Your task to perform on an android device: Go to calendar. Show me events next week Image 0: 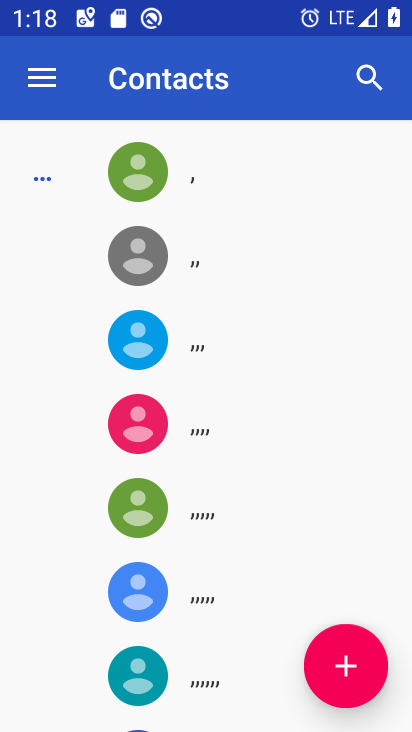
Step 0: press home button
Your task to perform on an android device: Go to calendar. Show me events next week Image 1: 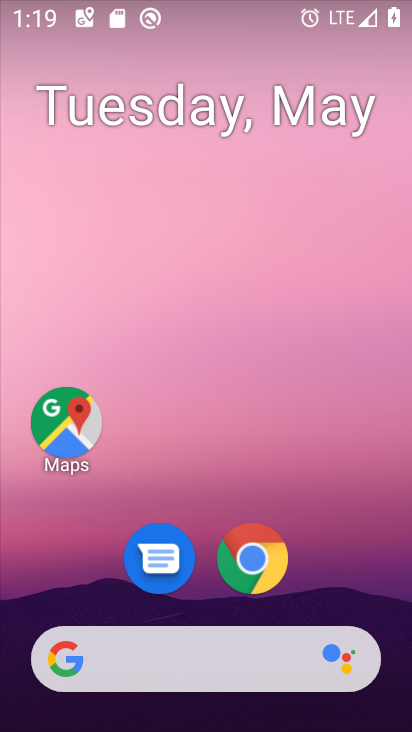
Step 1: drag from (361, 601) to (258, 126)
Your task to perform on an android device: Go to calendar. Show me events next week Image 2: 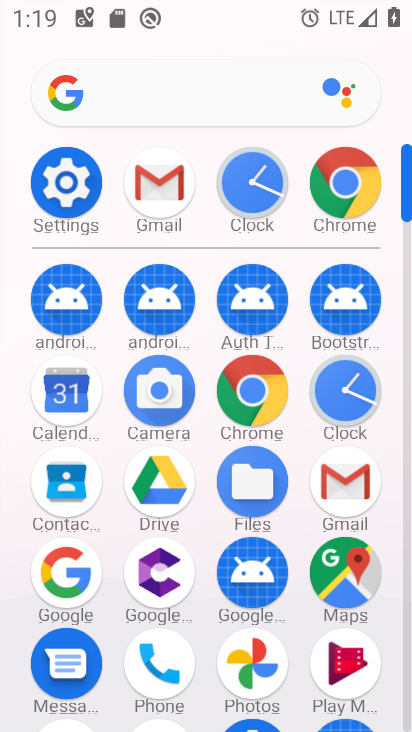
Step 2: click (69, 382)
Your task to perform on an android device: Go to calendar. Show me events next week Image 3: 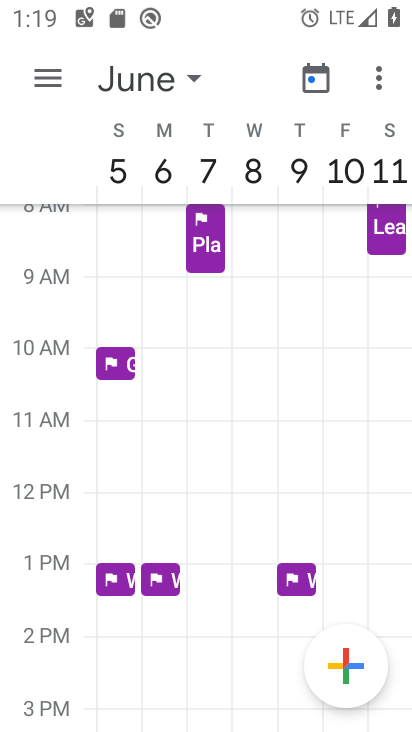
Step 3: task complete